Your task to perform on an android device: Is it going to rain today? Image 0: 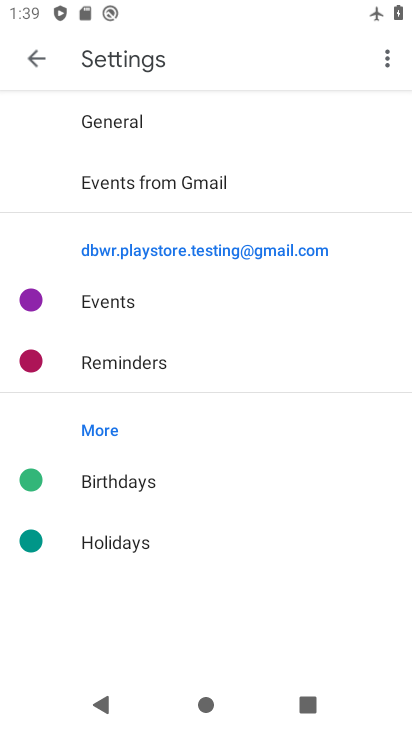
Step 0: press home button
Your task to perform on an android device: Is it going to rain today? Image 1: 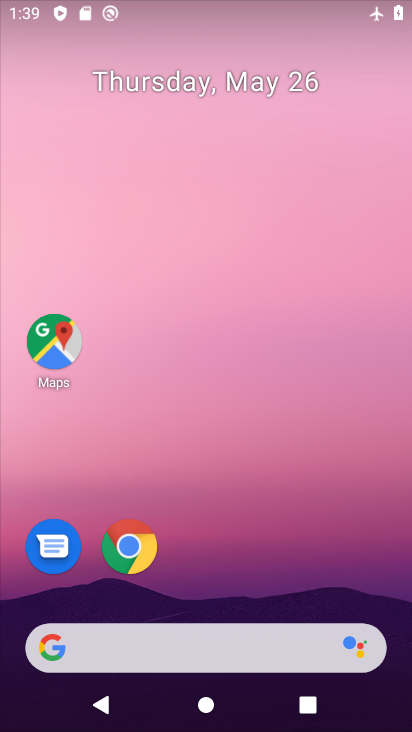
Step 1: drag from (205, 565) to (285, 84)
Your task to perform on an android device: Is it going to rain today? Image 2: 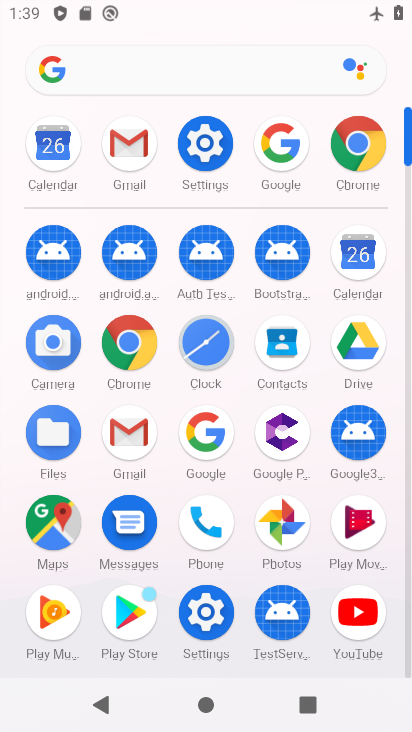
Step 2: click (198, 415)
Your task to perform on an android device: Is it going to rain today? Image 3: 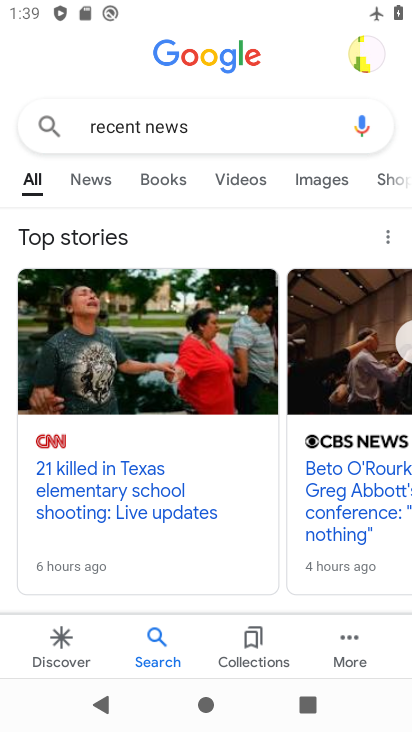
Step 3: click (252, 118)
Your task to perform on an android device: Is it going to rain today? Image 4: 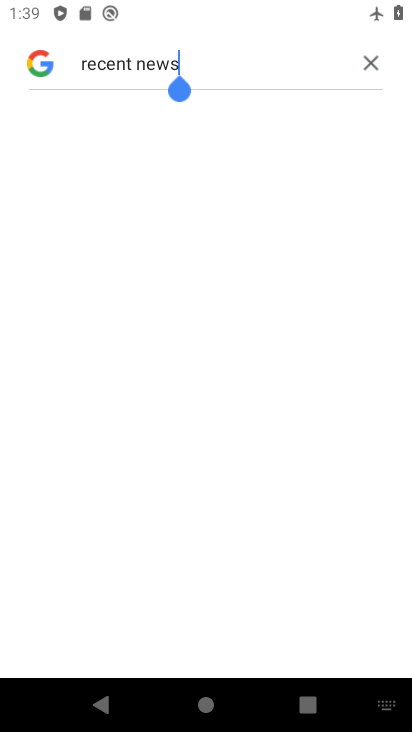
Step 4: click (376, 64)
Your task to perform on an android device: Is it going to rain today? Image 5: 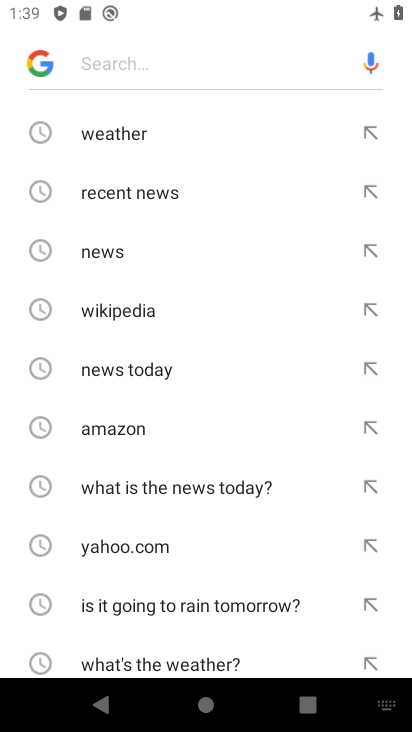
Step 5: drag from (212, 590) to (217, 356)
Your task to perform on an android device: Is it going to rain today? Image 6: 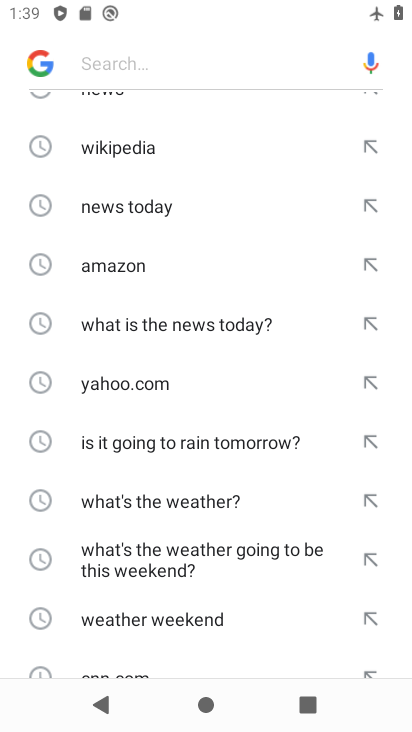
Step 6: drag from (232, 598) to (255, 342)
Your task to perform on an android device: Is it going to rain today? Image 7: 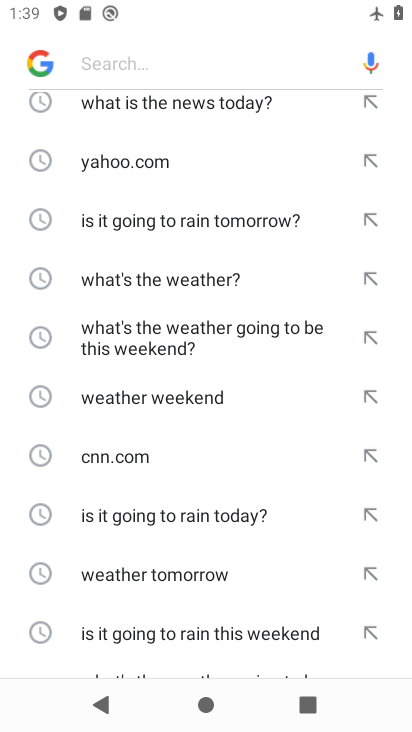
Step 7: click (160, 509)
Your task to perform on an android device: Is it going to rain today? Image 8: 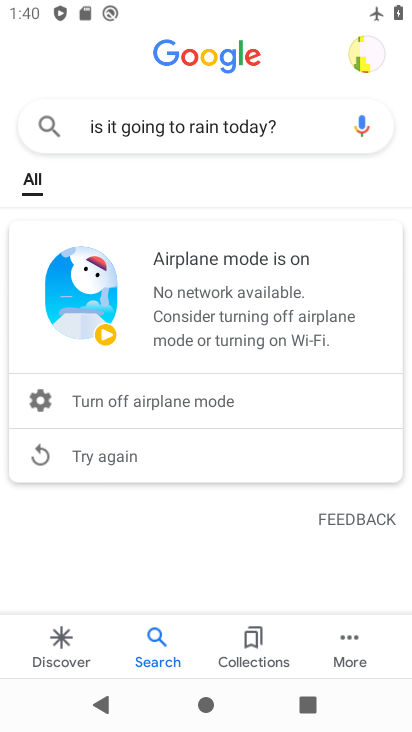
Step 8: task complete